Your task to perform on an android device: Search for flights from NYC to London Image 0: 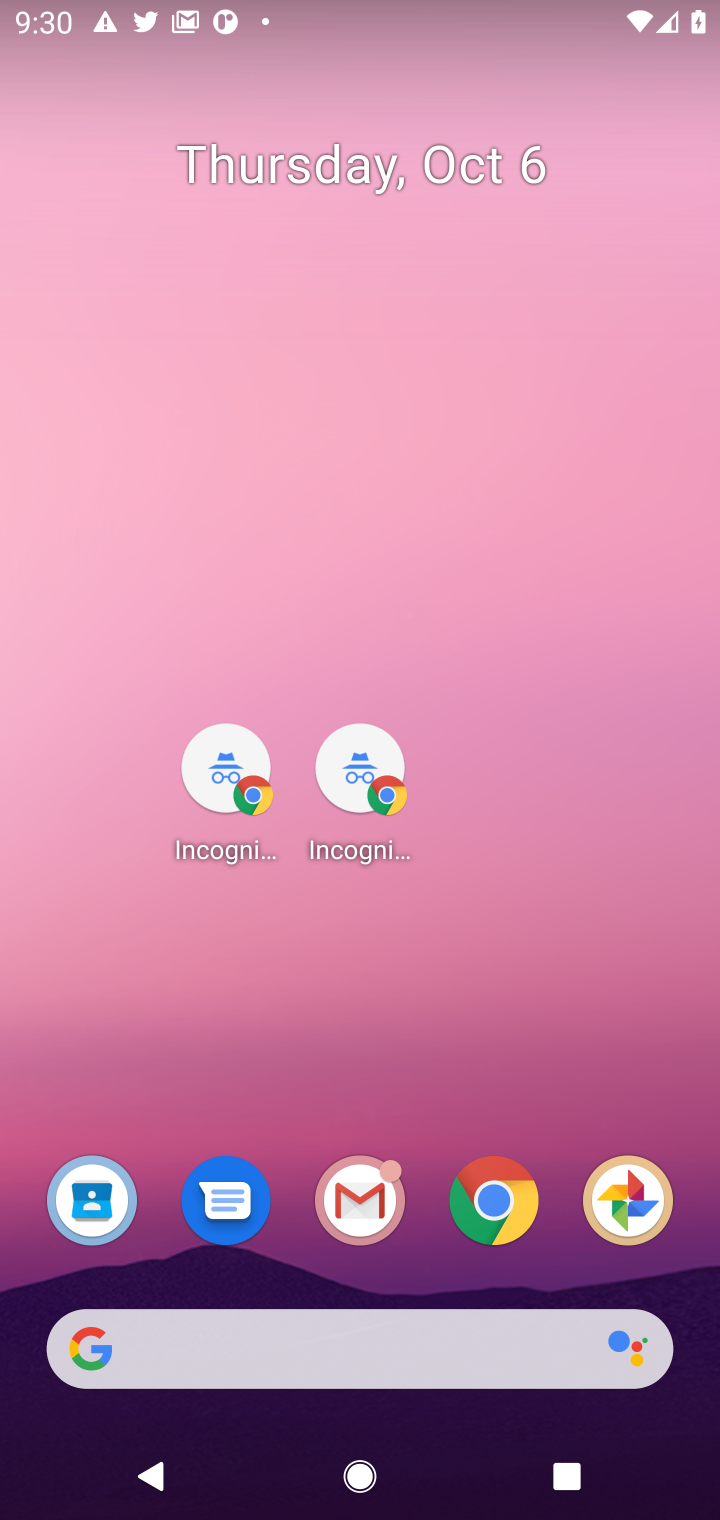
Step 0: press home button
Your task to perform on an android device: Search for flights from NYC to London Image 1: 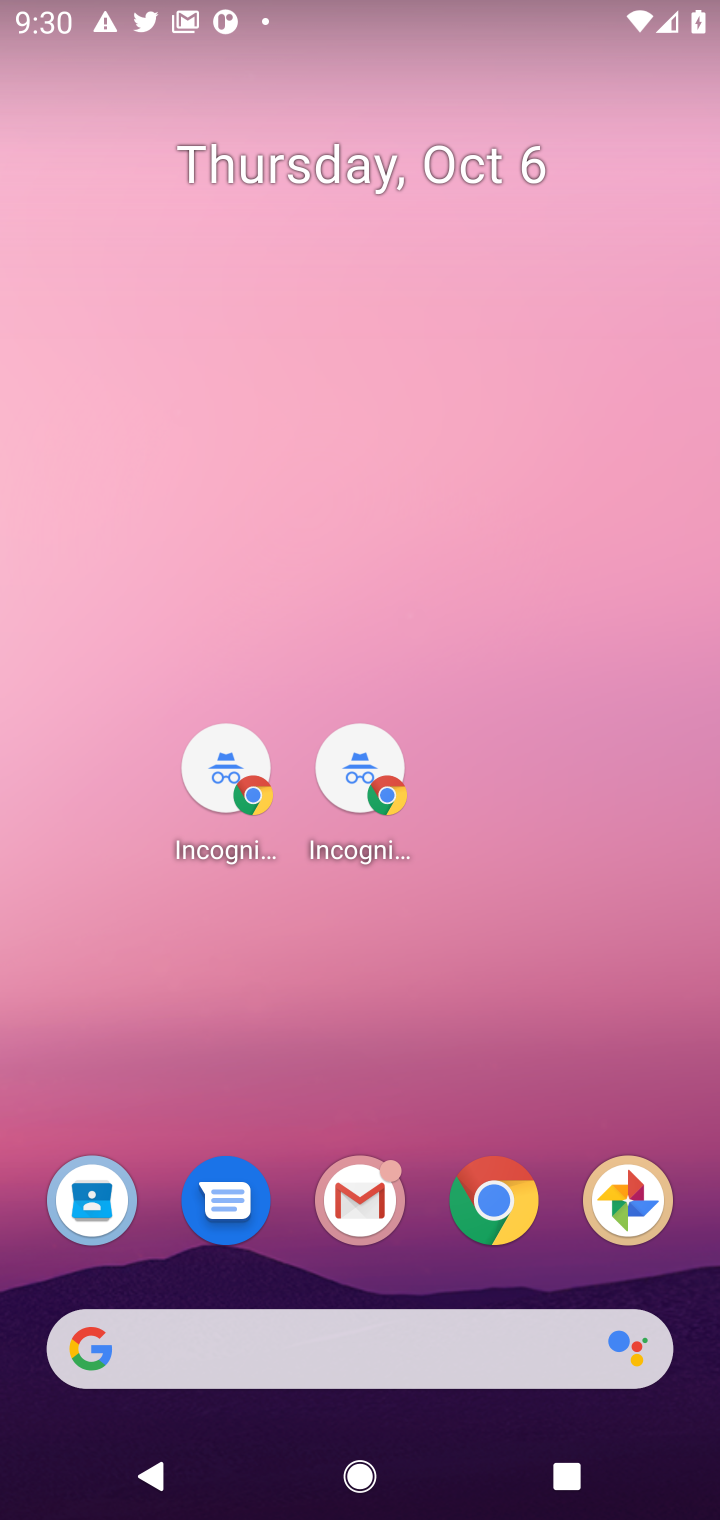
Step 1: click (484, 1188)
Your task to perform on an android device: Search for flights from NYC to London Image 2: 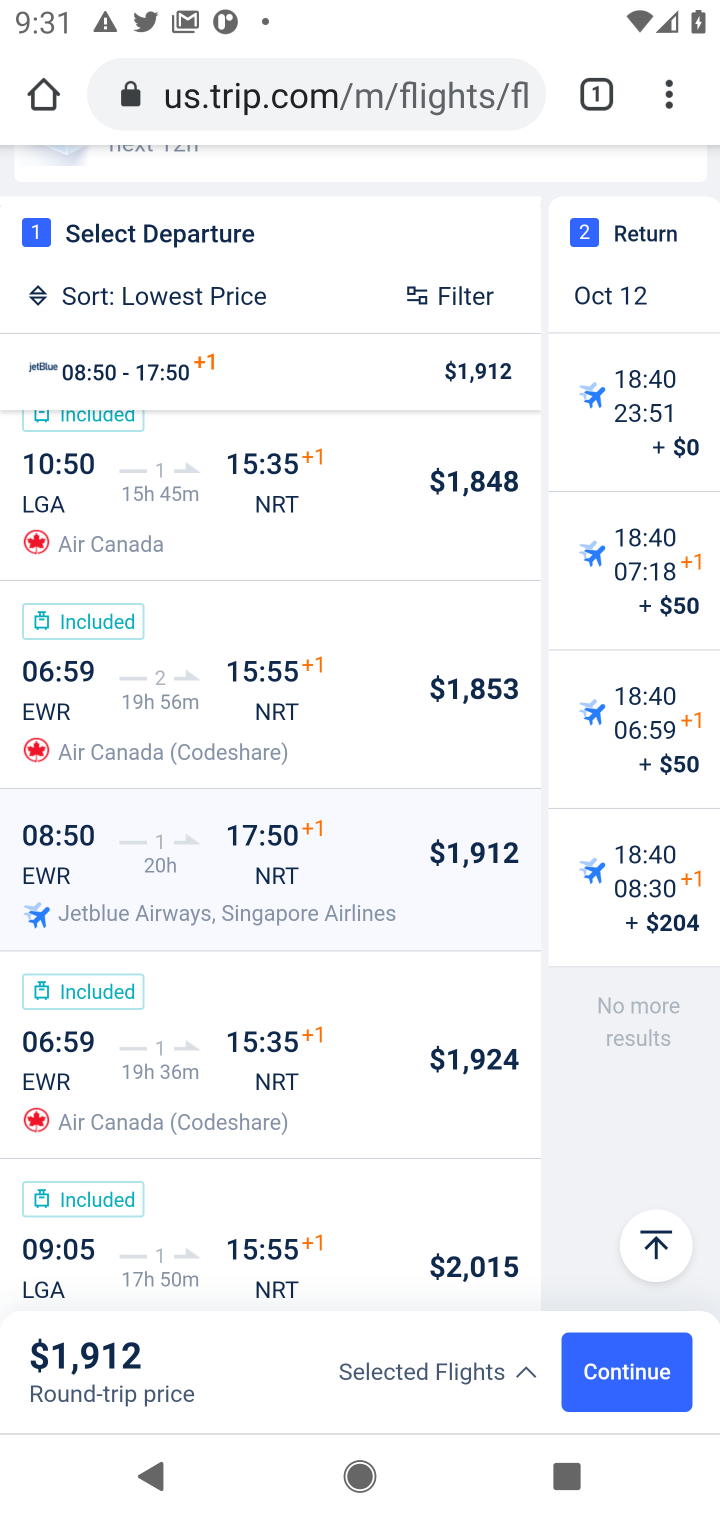
Step 2: click (393, 98)
Your task to perform on an android device: Search for flights from NYC to London Image 3: 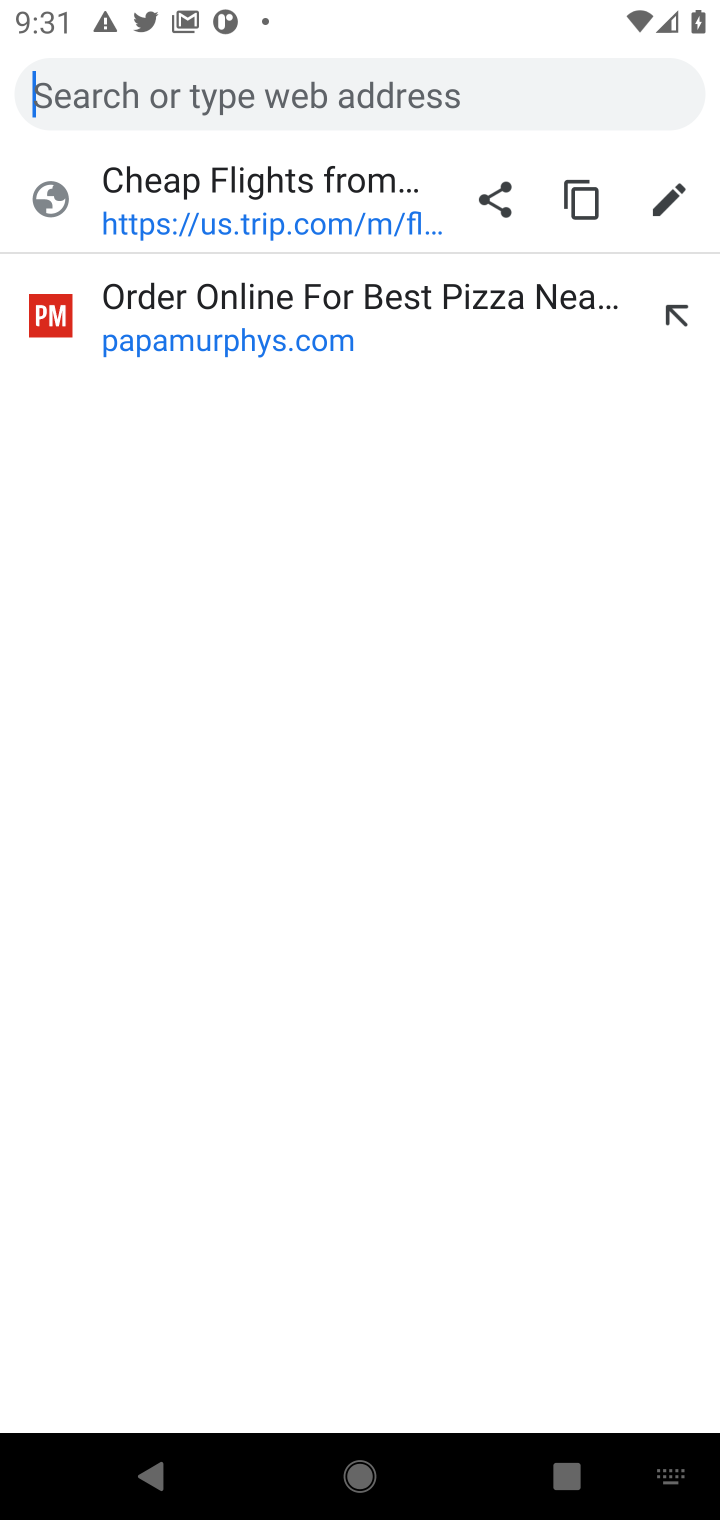
Step 3: type "flight from NYc to london"
Your task to perform on an android device: Search for flights from NYC to London Image 4: 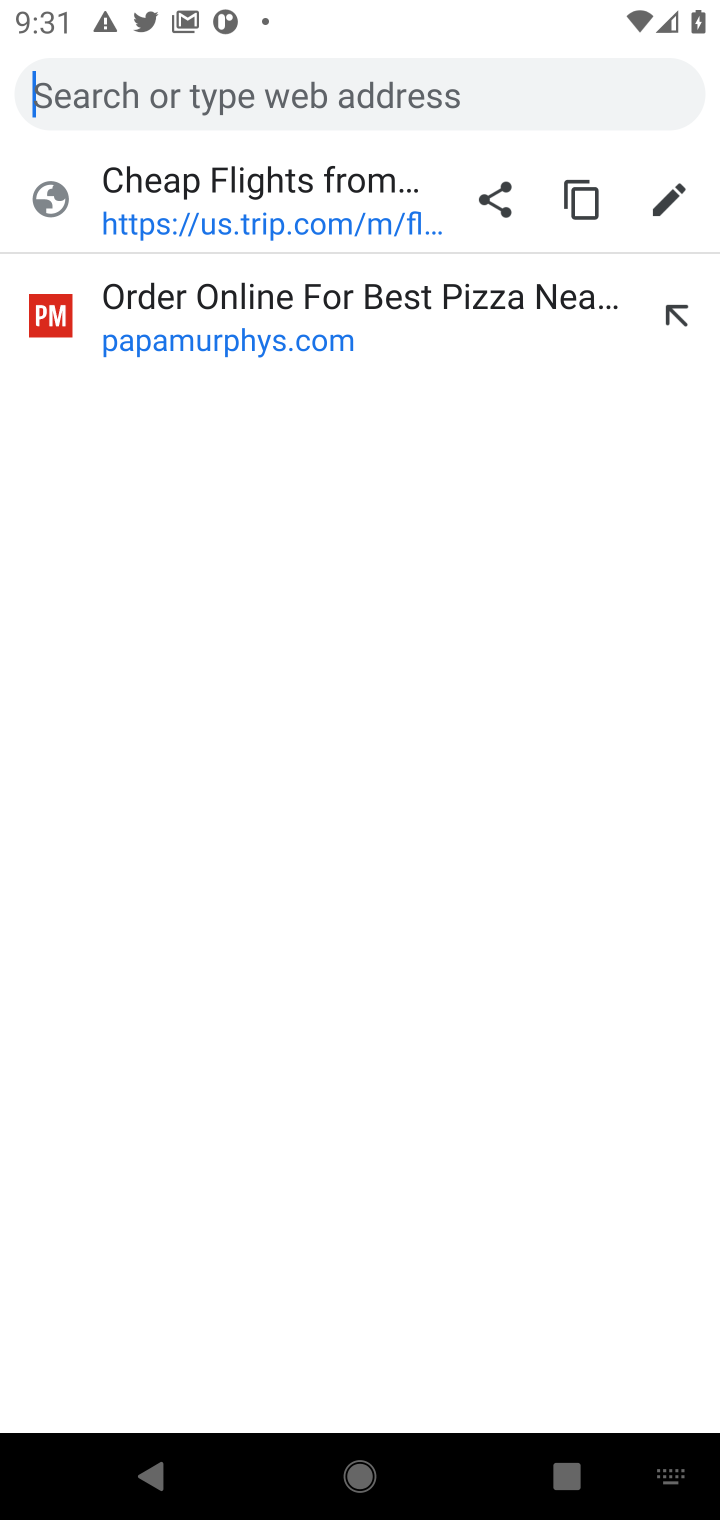
Step 4: click (256, 201)
Your task to perform on an android device: Search for flights from NYC to London Image 5: 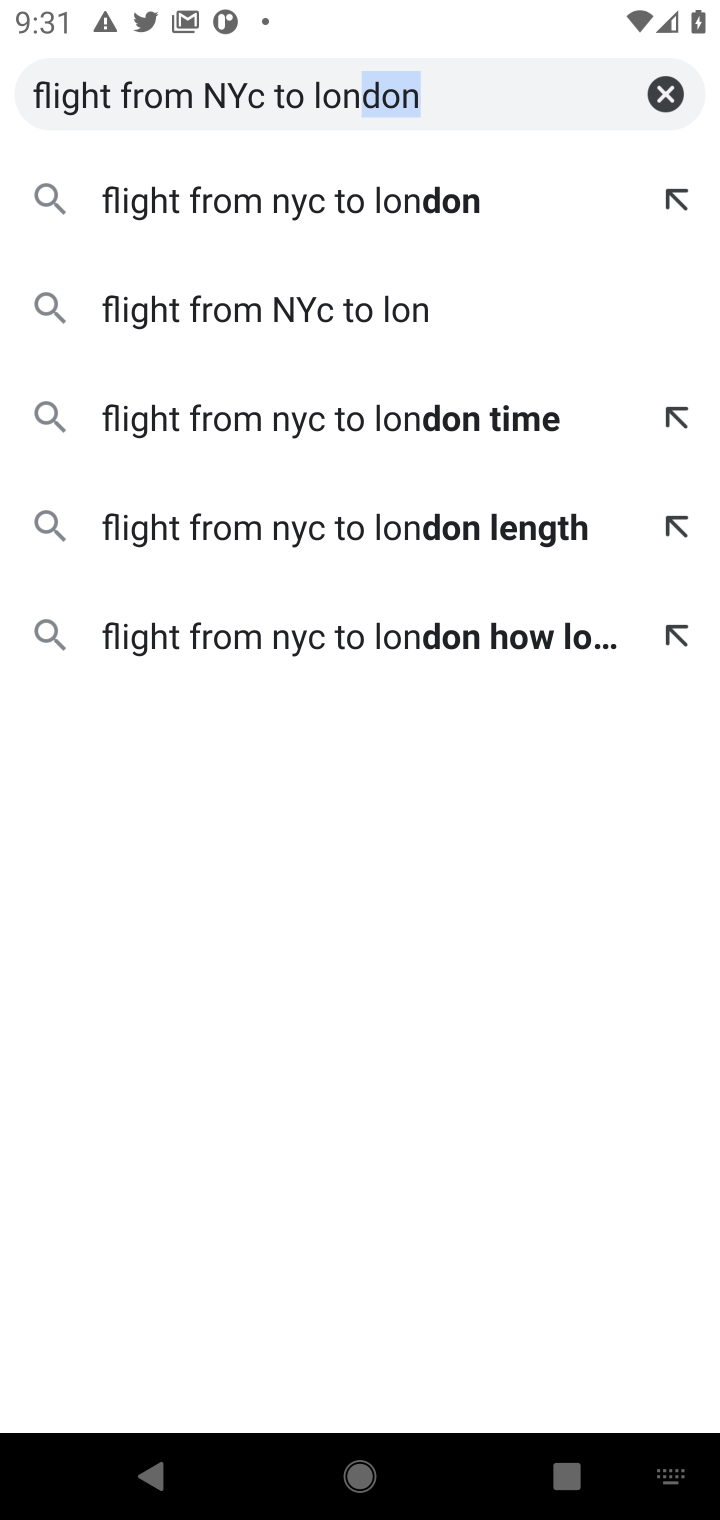
Step 5: click (353, 225)
Your task to perform on an android device: Search for flights from NYC to London Image 6: 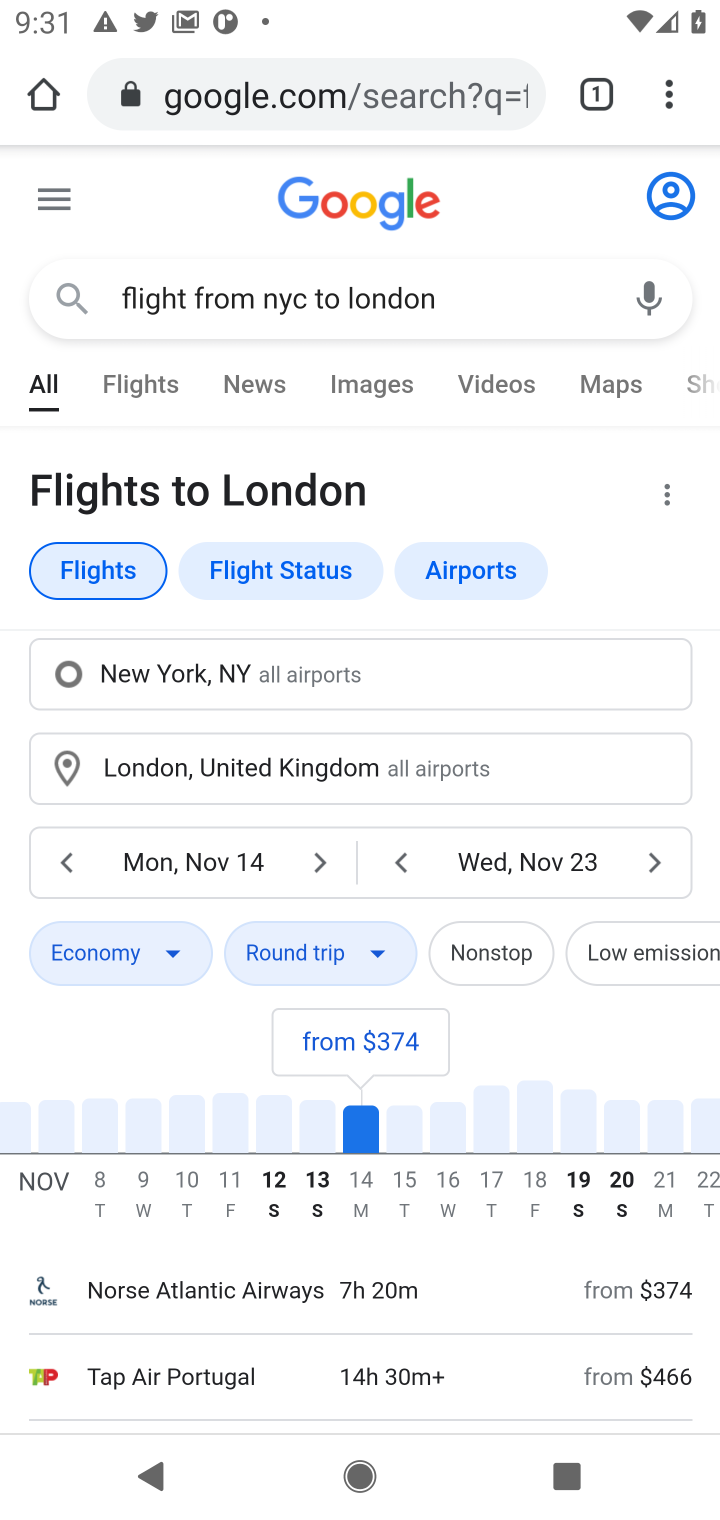
Step 6: click (267, 952)
Your task to perform on an android device: Search for flights from NYC to London Image 7: 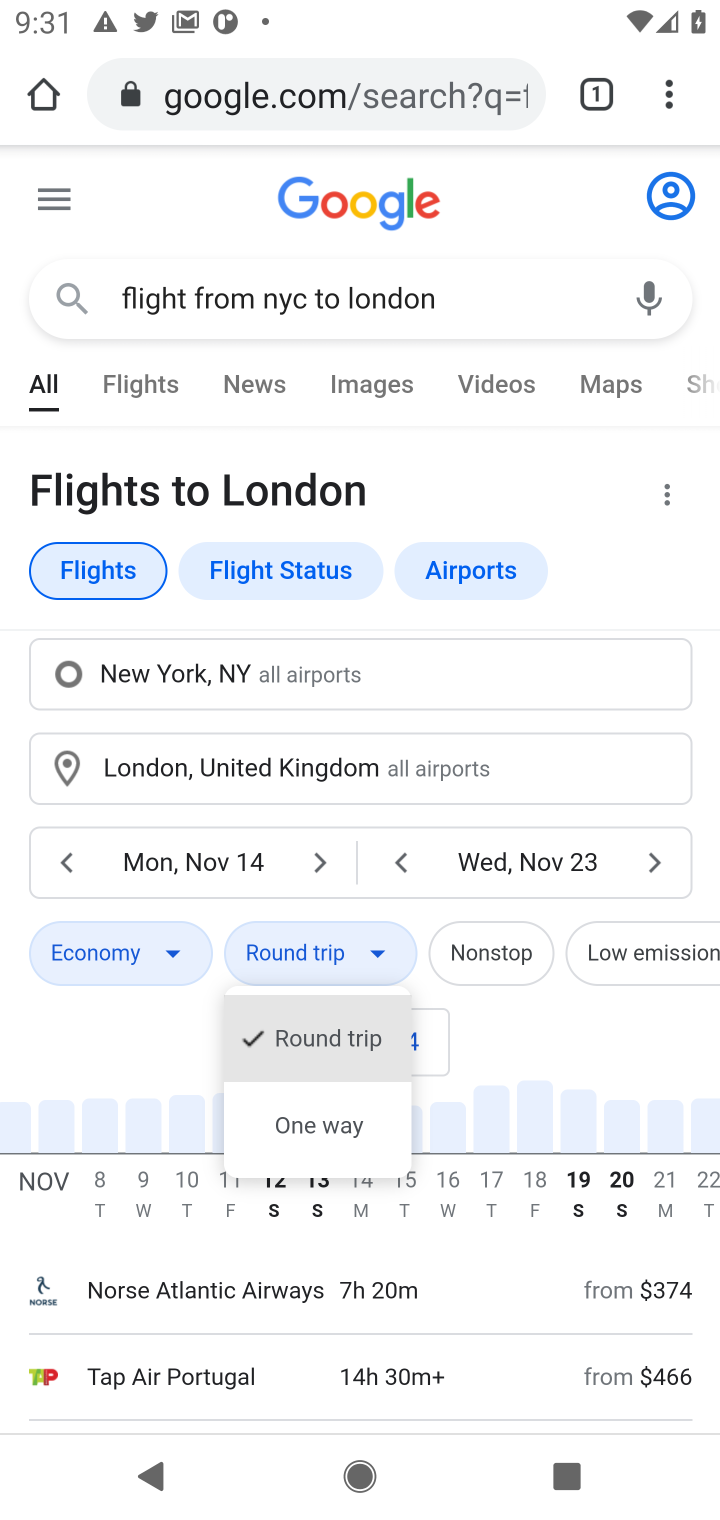
Step 7: click (298, 1045)
Your task to perform on an android device: Search for flights from NYC to London Image 8: 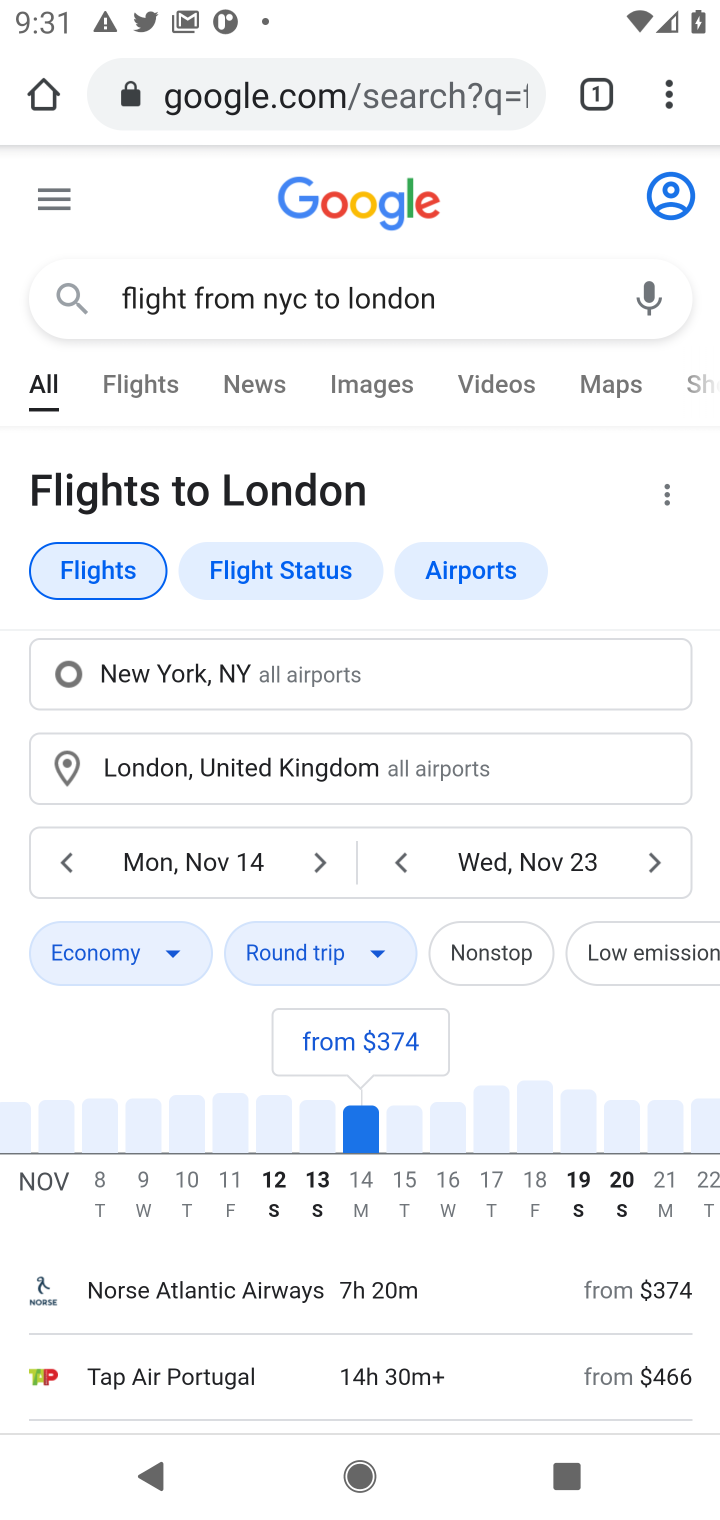
Step 8: drag from (429, 1073) to (514, 431)
Your task to perform on an android device: Search for flights from NYC to London Image 9: 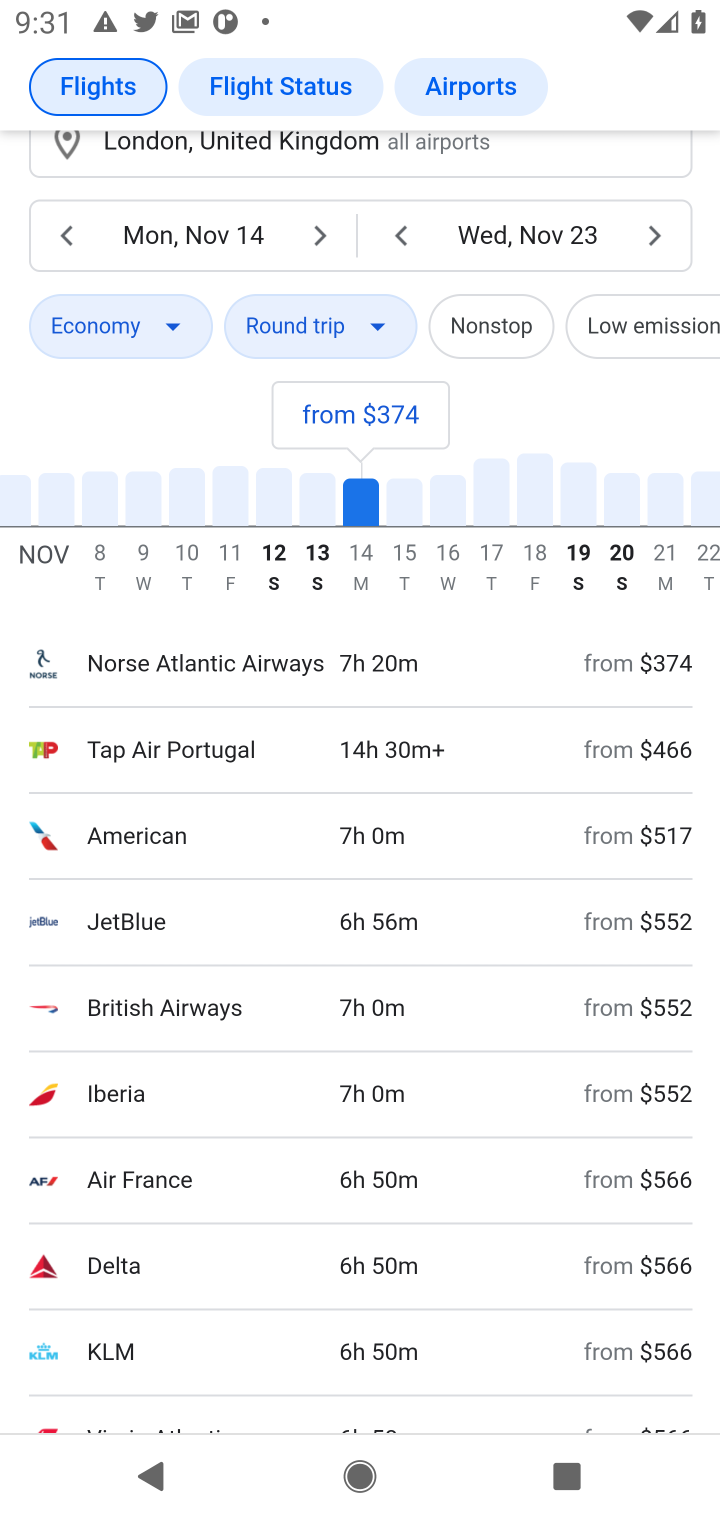
Step 9: click (217, 656)
Your task to perform on an android device: Search for flights from NYC to London Image 10: 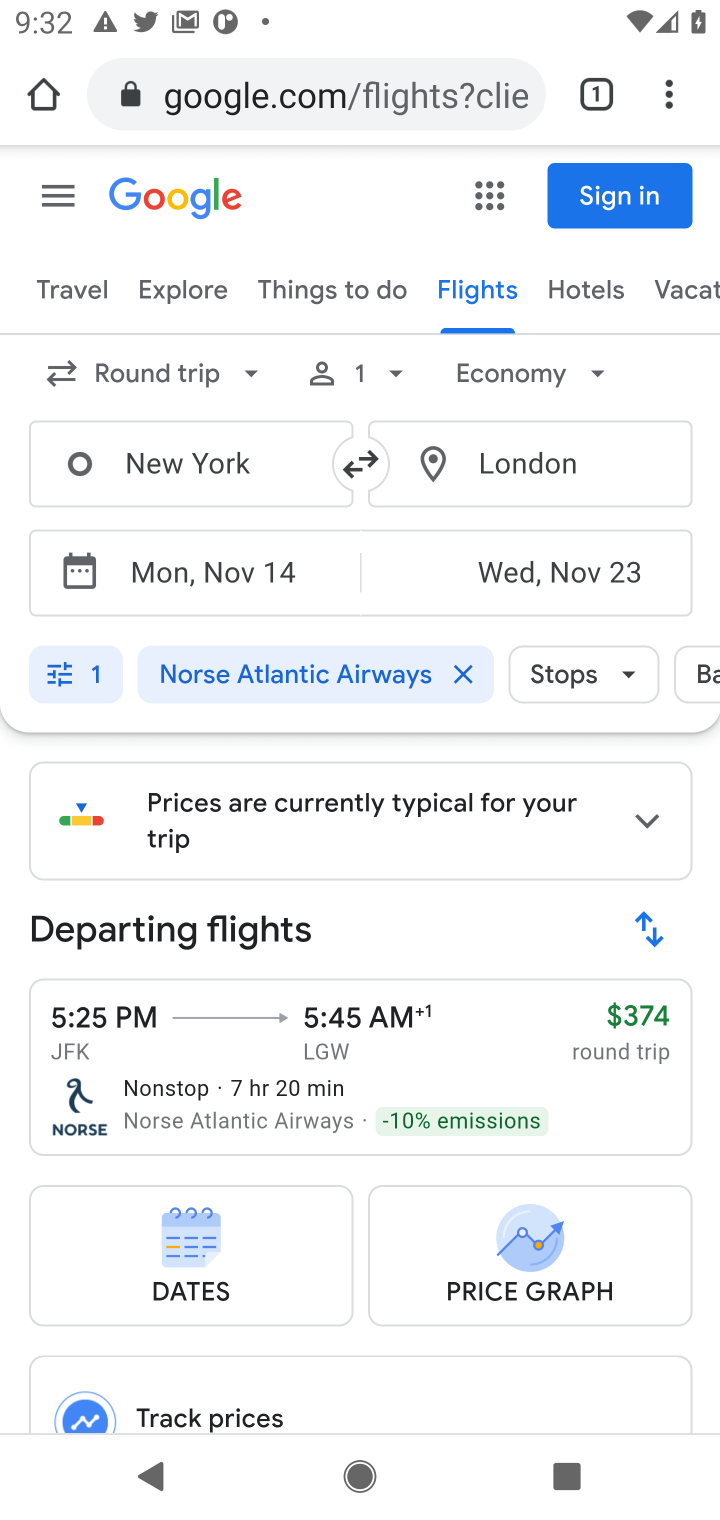
Step 10: drag from (618, 1073) to (613, 616)
Your task to perform on an android device: Search for flights from NYC to London Image 11: 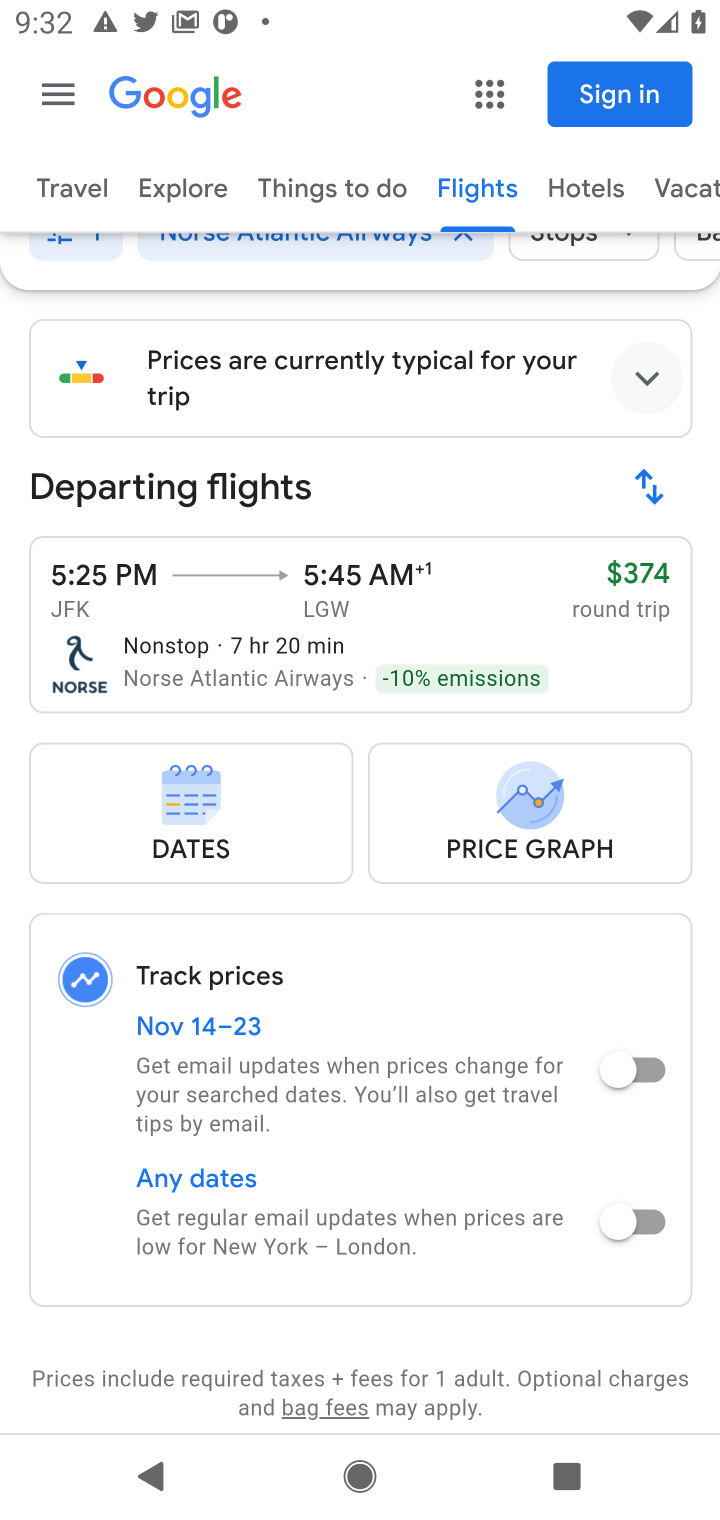
Step 11: drag from (471, 1051) to (501, 366)
Your task to perform on an android device: Search for flights from NYC to London Image 12: 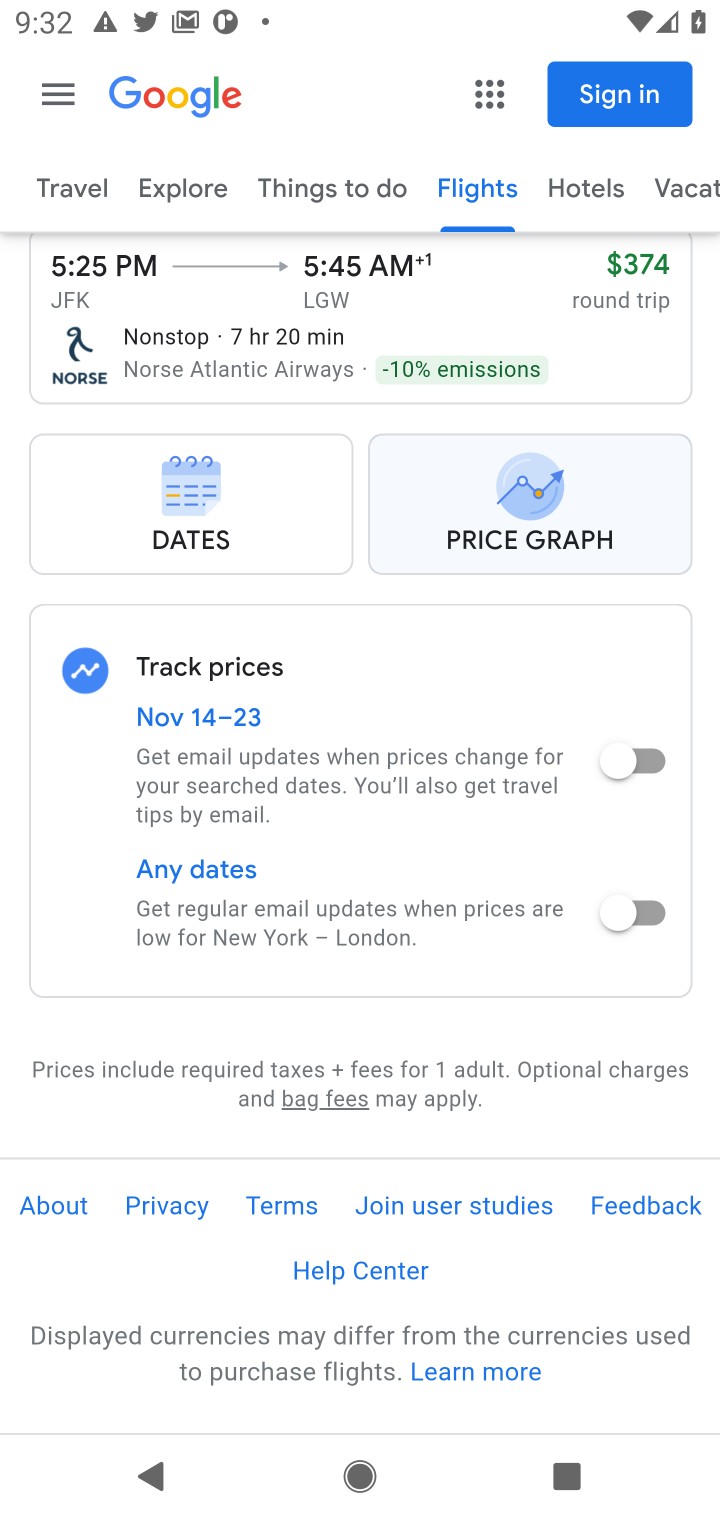
Step 12: drag from (136, 1054) to (228, 448)
Your task to perform on an android device: Search for flights from NYC to London Image 13: 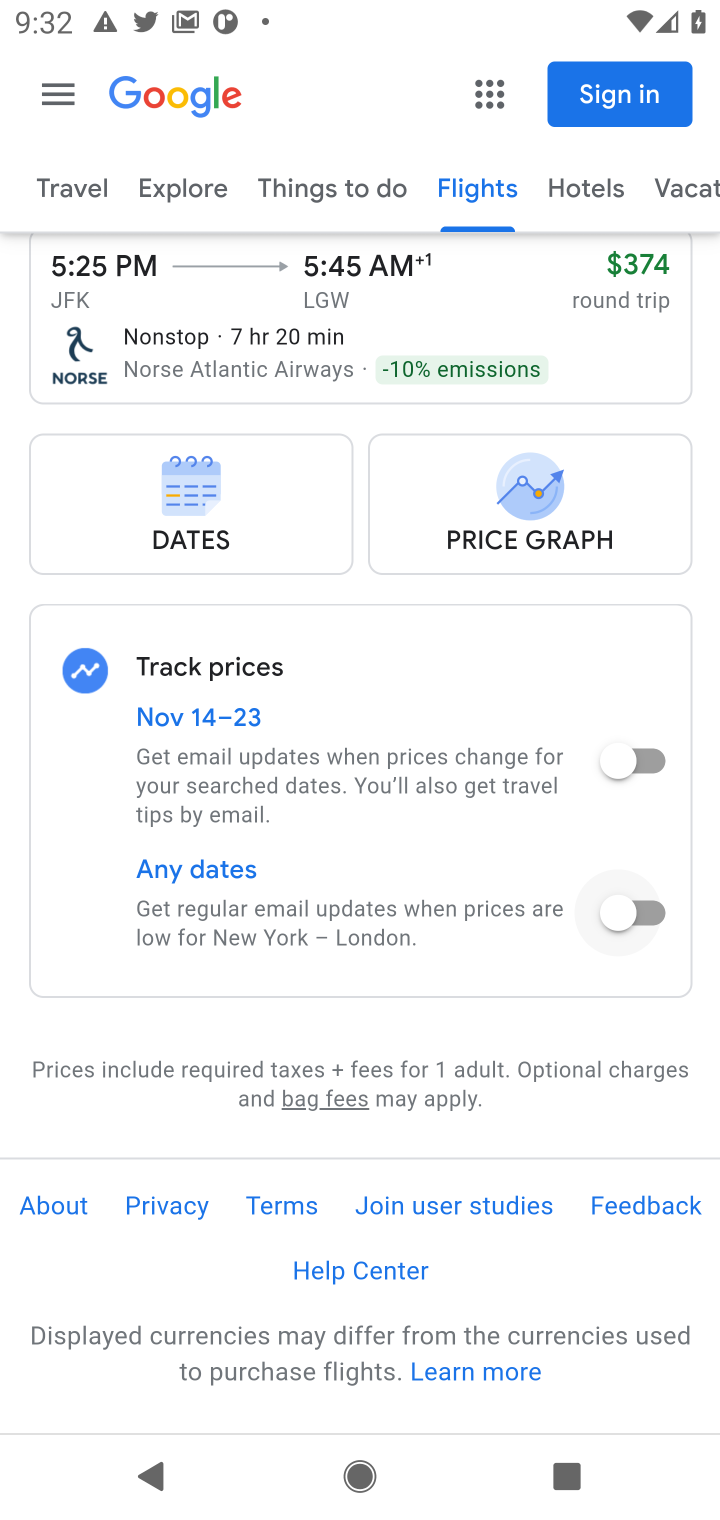
Step 13: drag from (325, 461) to (386, 1214)
Your task to perform on an android device: Search for flights from NYC to London Image 14: 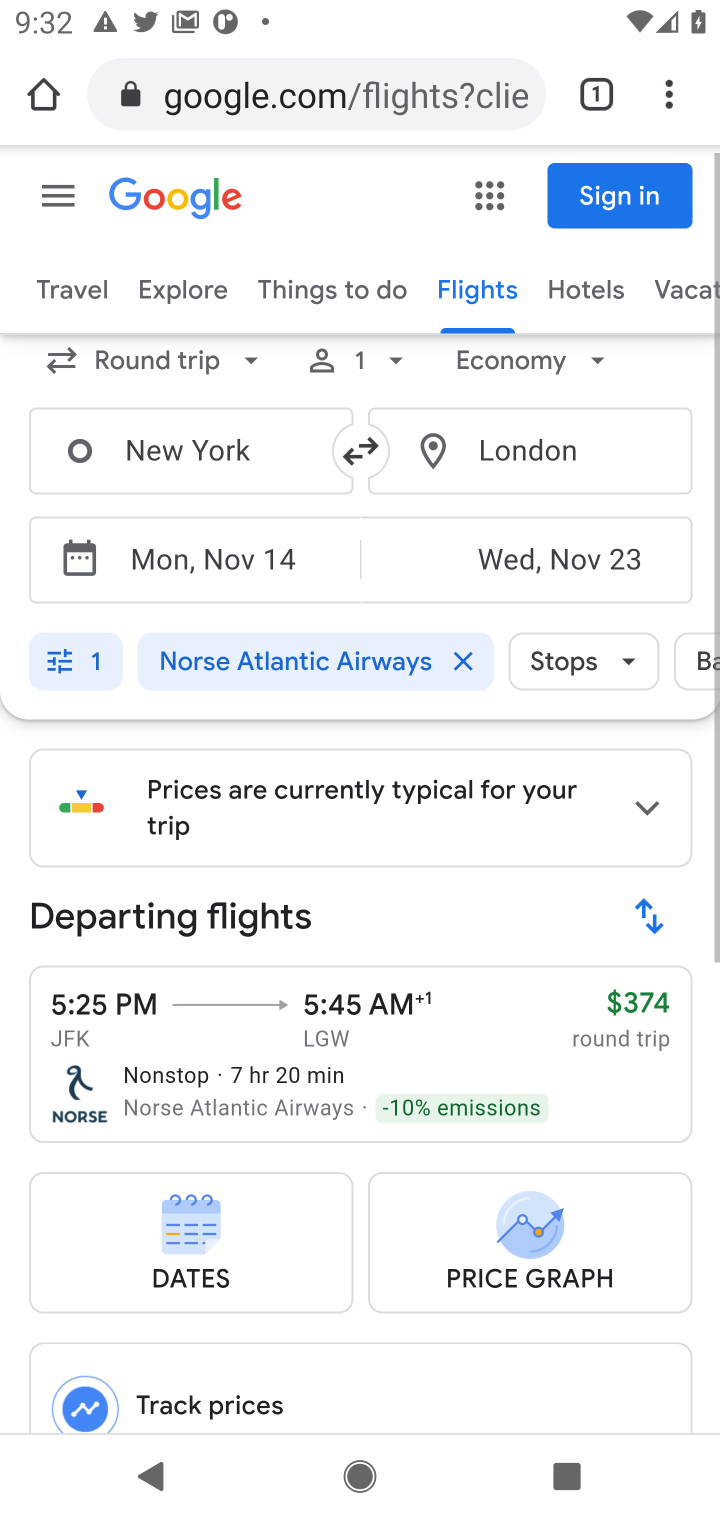
Step 14: drag from (259, 466) to (269, 1130)
Your task to perform on an android device: Search for flights from NYC to London Image 15: 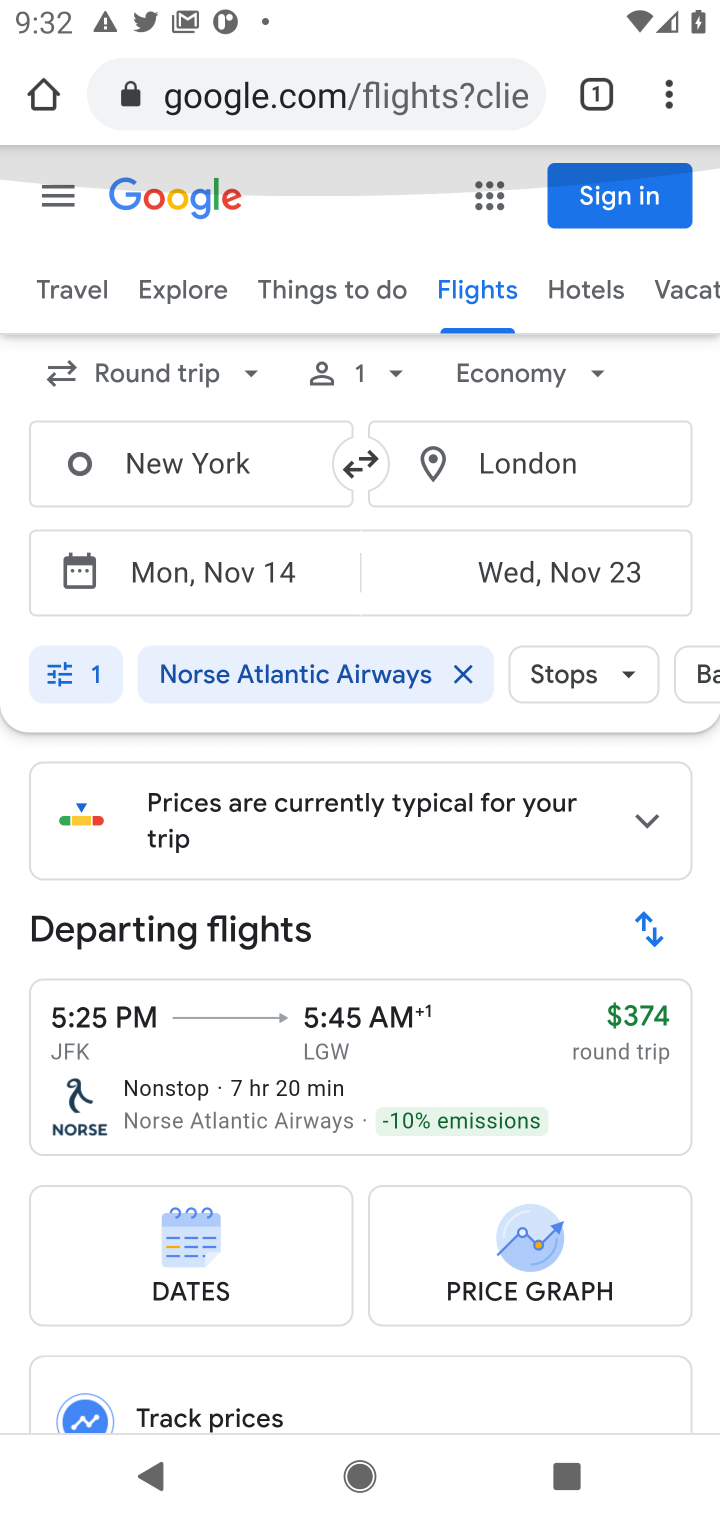
Step 15: drag from (371, 723) to (16, 754)
Your task to perform on an android device: Search for flights from NYC to London Image 16: 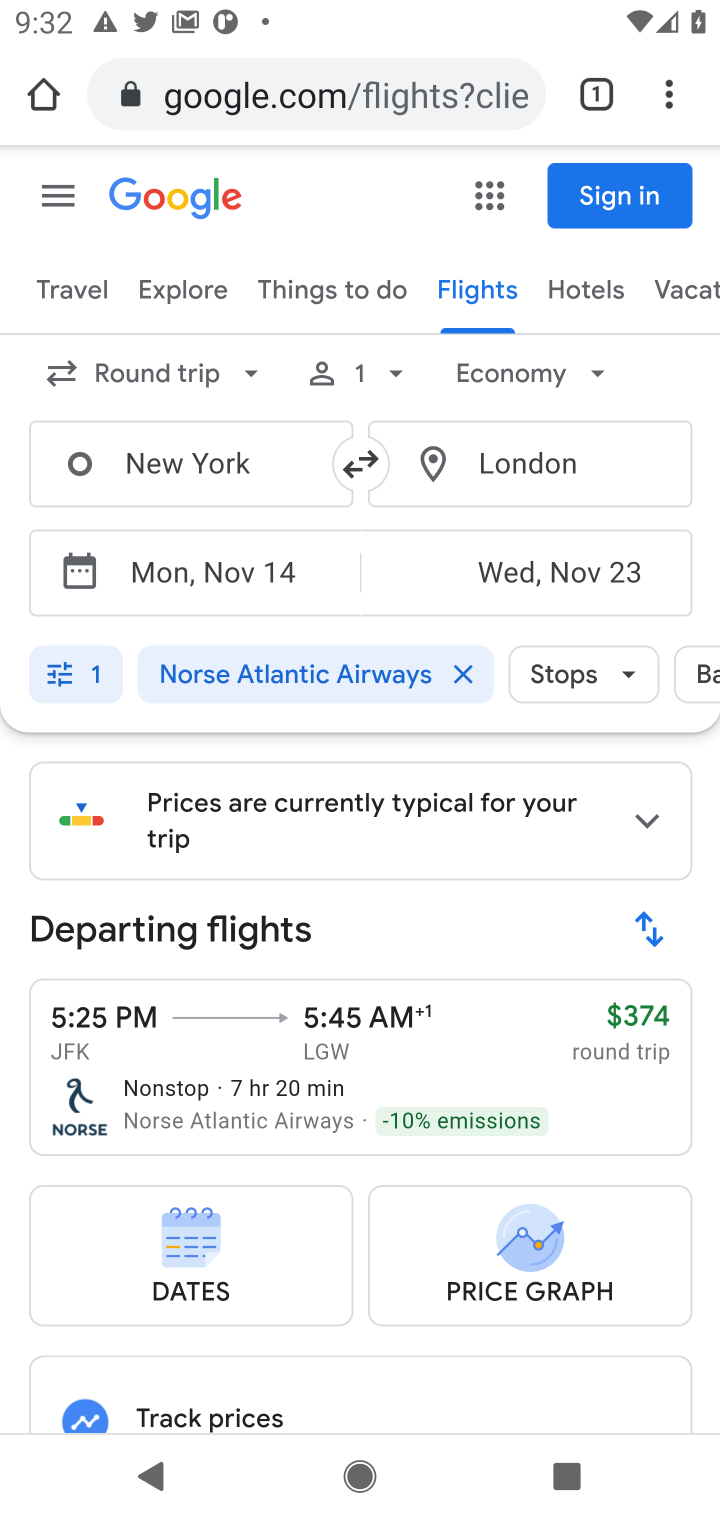
Step 16: drag from (114, 529) to (117, 903)
Your task to perform on an android device: Search for flights from NYC to London Image 17: 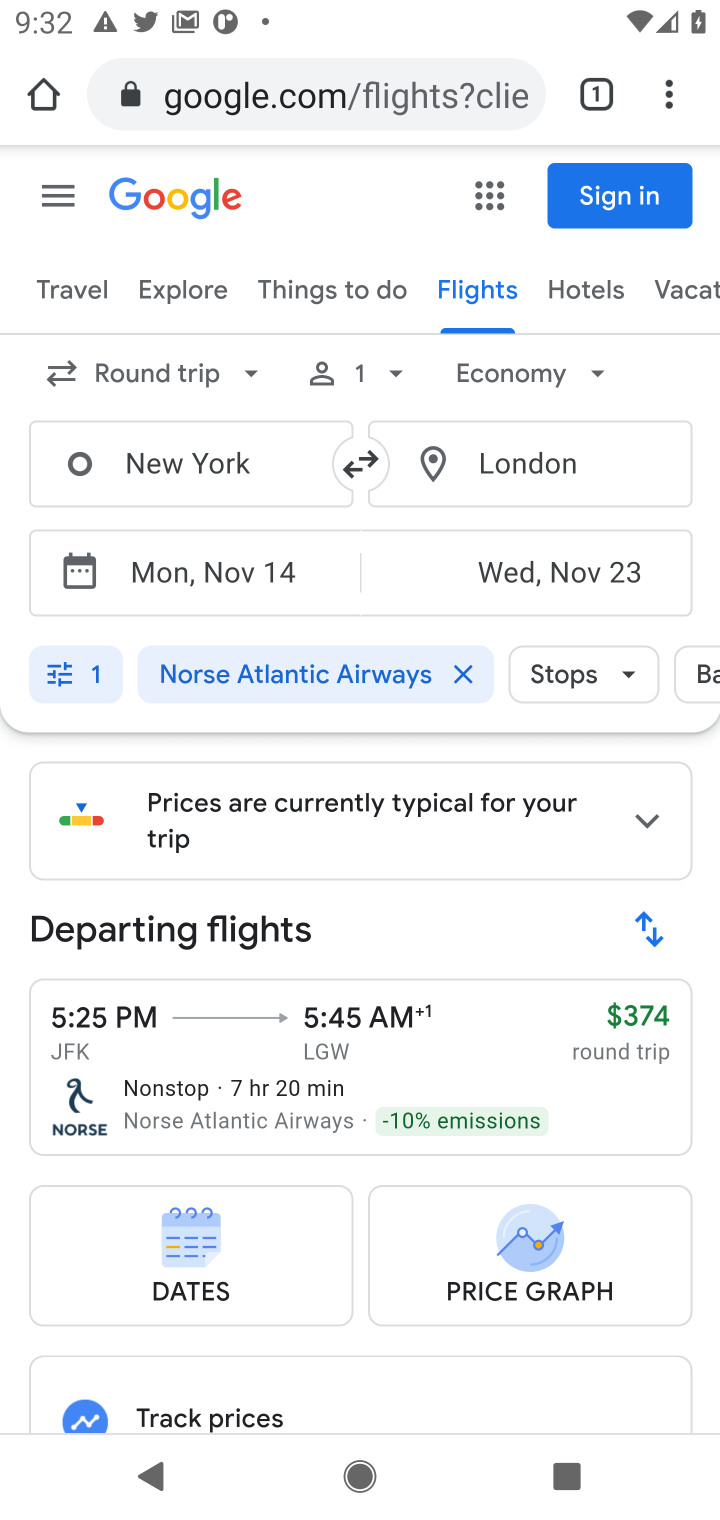
Step 17: click (617, 671)
Your task to perform on an android device: Search for flights from NYC to London Image 18: 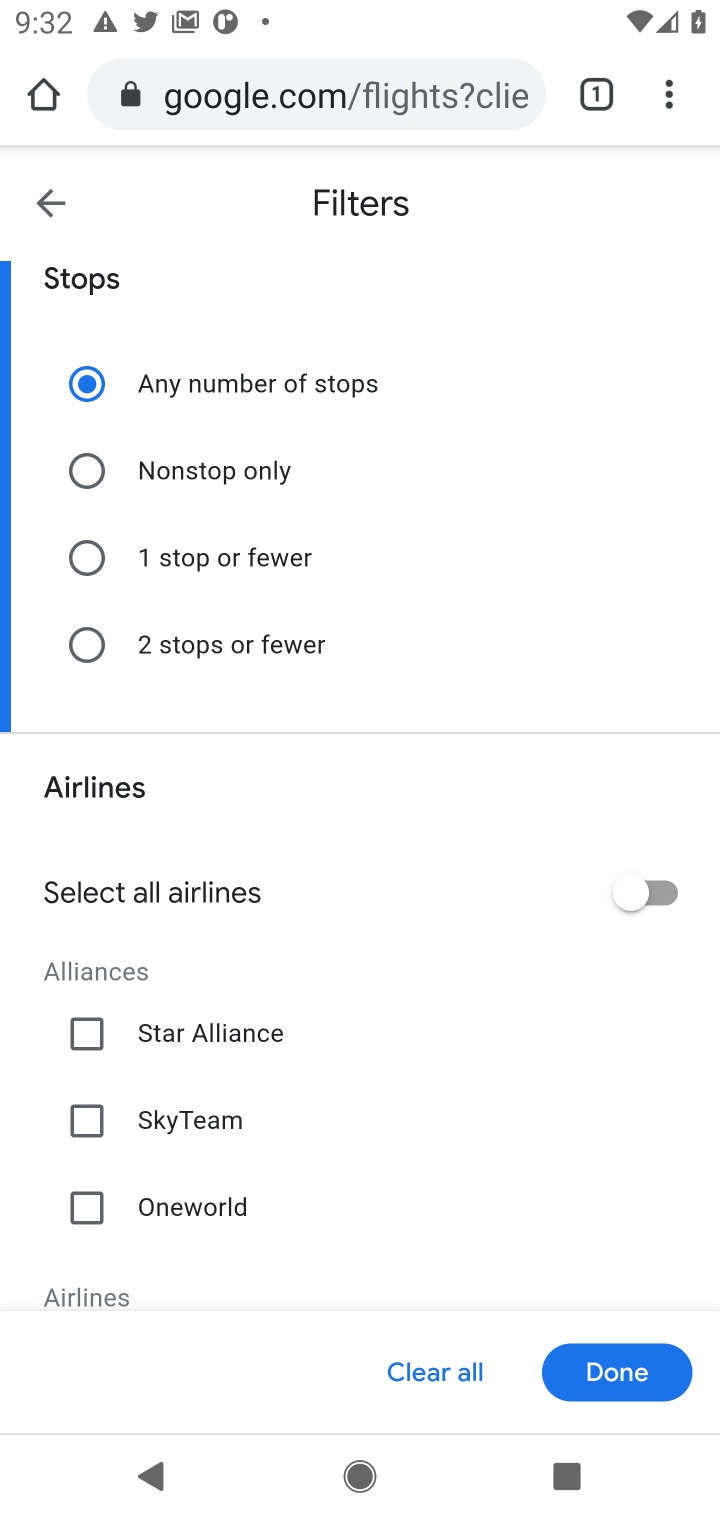
Step 18: click (92, 465)
Your task to perform on an android device: Search for flights from NYC to London Image 19: 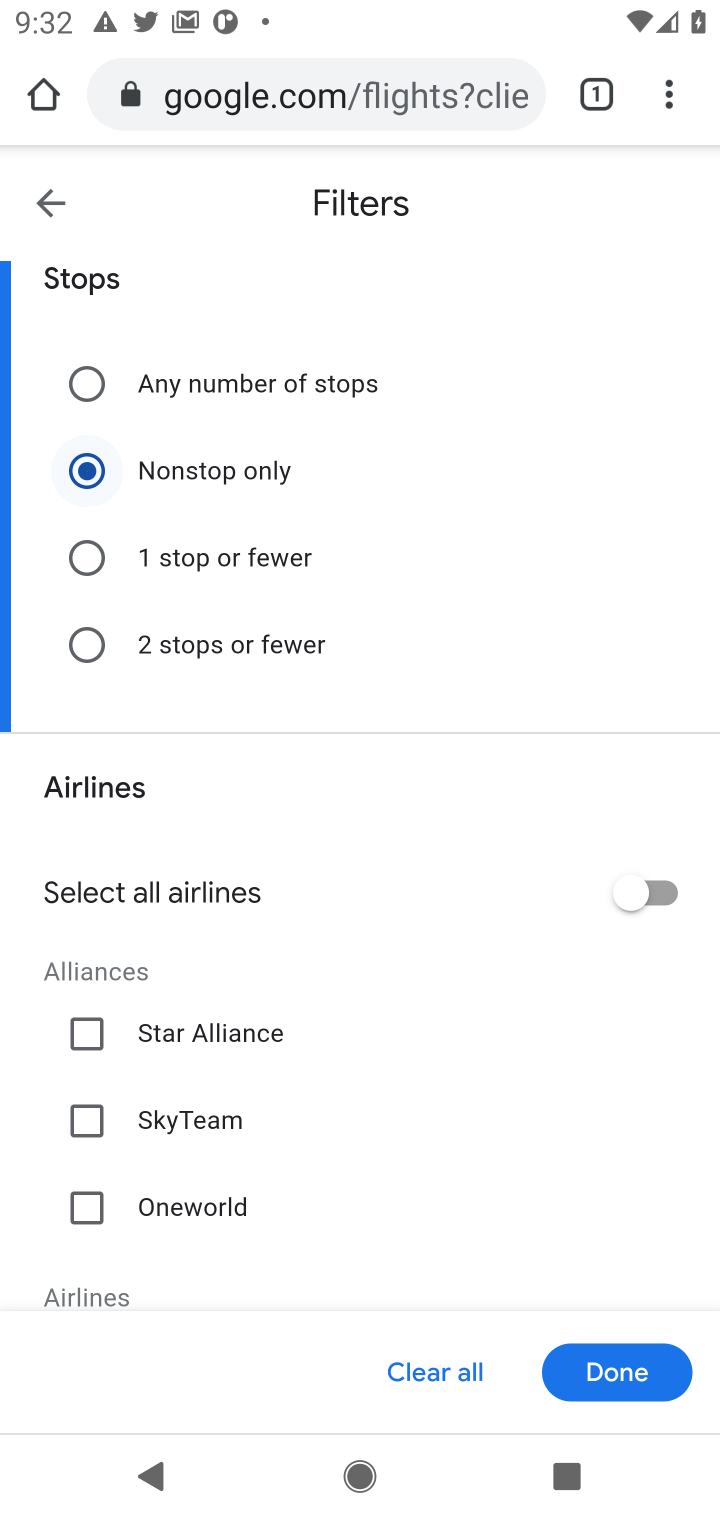
Step 19: click (94, 1113)
Your task to perform on an android device: Search for flights from NYC to London Image 20: 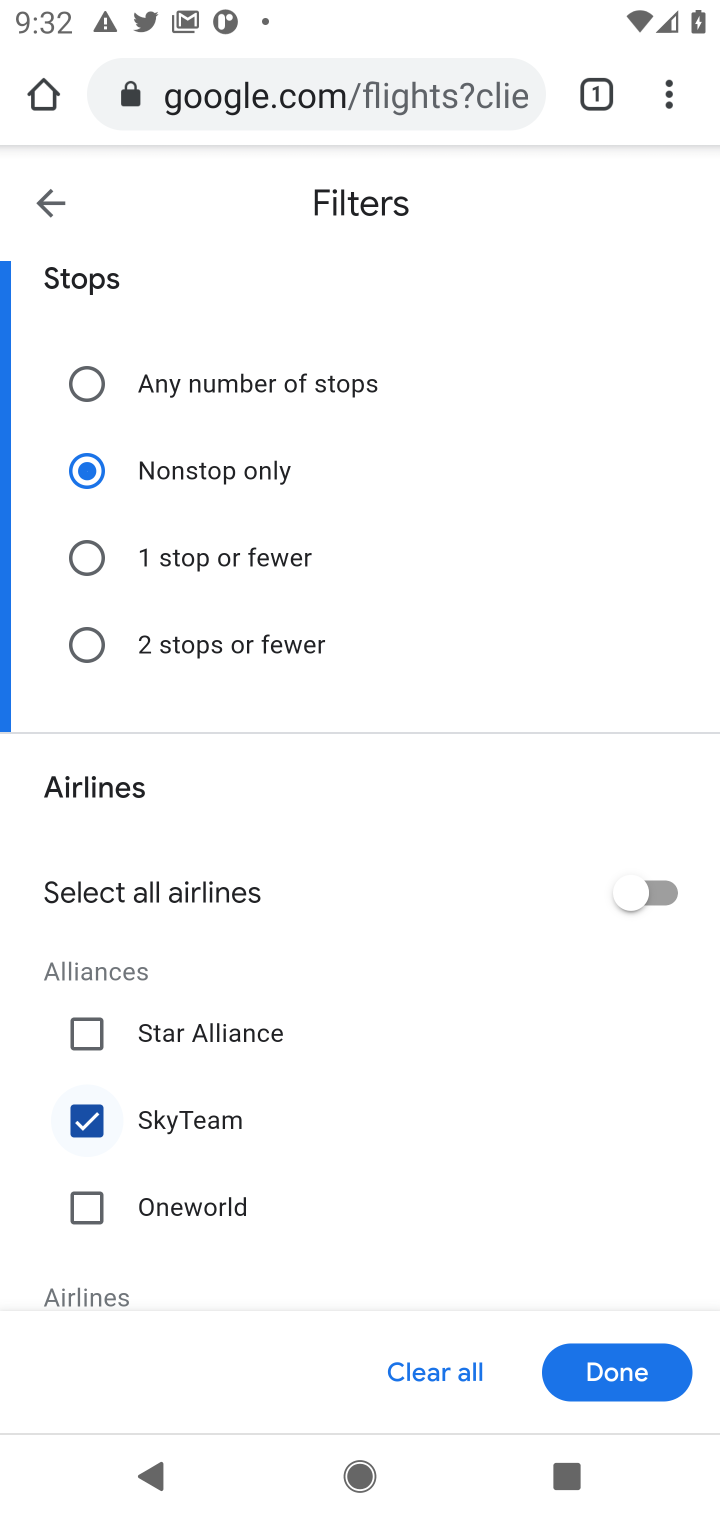
Step 20: click (621, 1372)
Your task to perform on an android device: Search for flights from NYC to London Image 21: 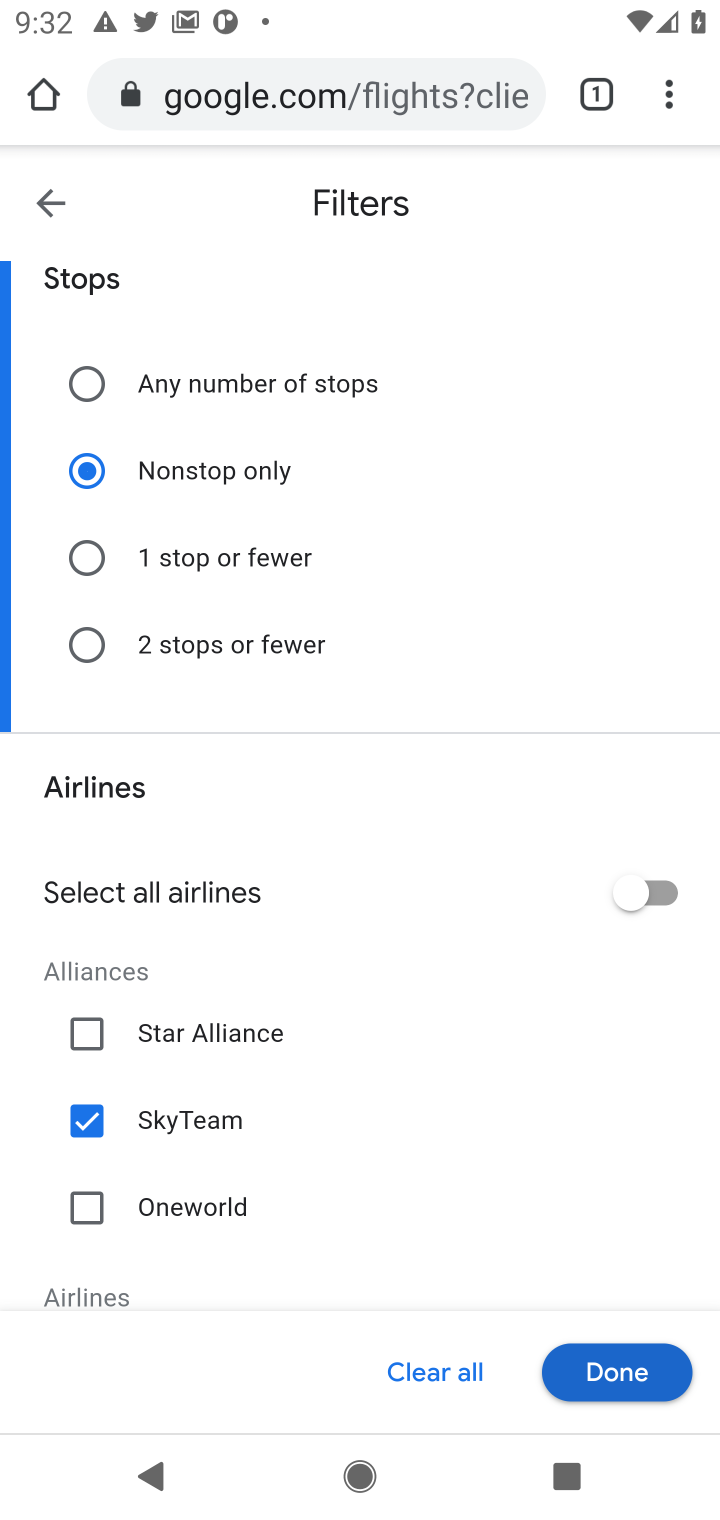
Step 21: click (594, 1373)
Your task to perform on an android device: Search for flights from NYC to London Image 22: 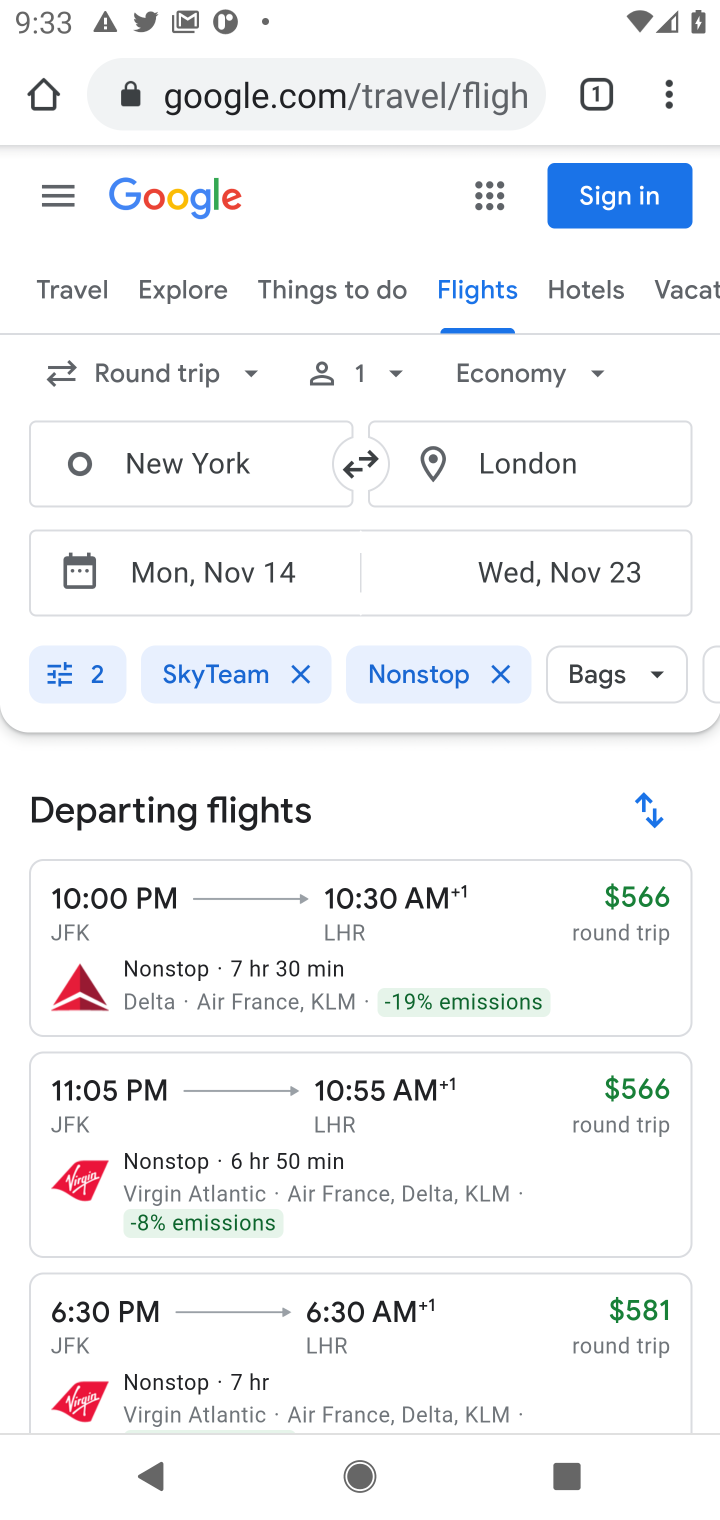
Step 22: task complete